Your task to perform on an android device: toggle priority inbox in the gmail app Image 0: 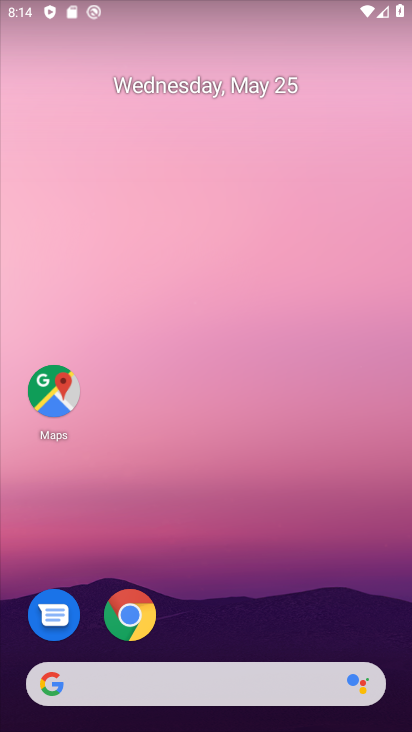
Step 0: drag from (189, 647) to (189, 45)
Your task to perform on an android device: toggle priority inbox in the gmail app Image 1: 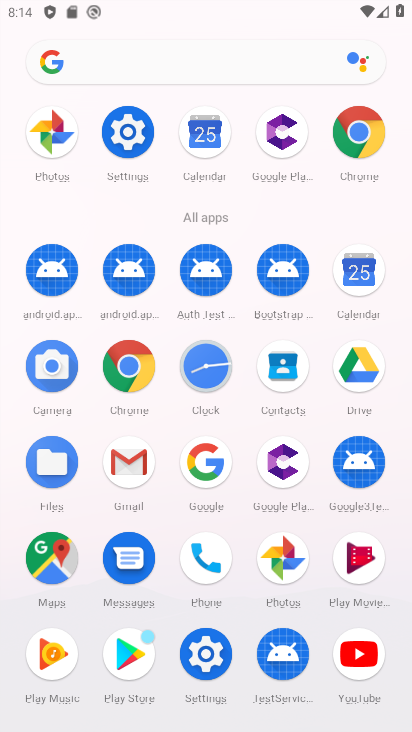
Step 1: click (123, 122)
Your task to perform on an android device: toggle priority inbox in the gmail app Image 2: 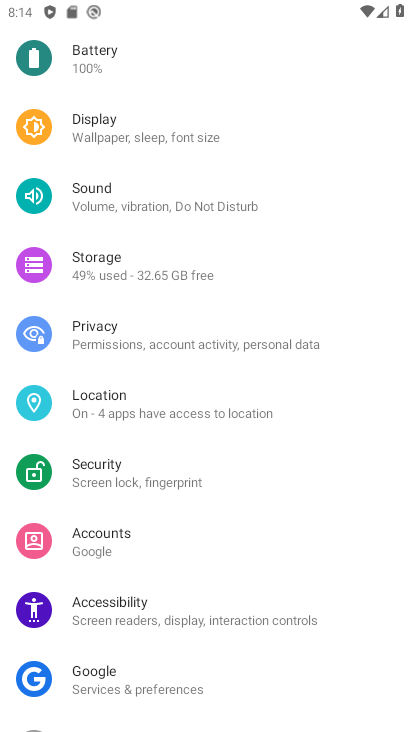
Step 2: press home button
Your task to perform on an android device: toggle priority inbox in the gmail app Image 3: 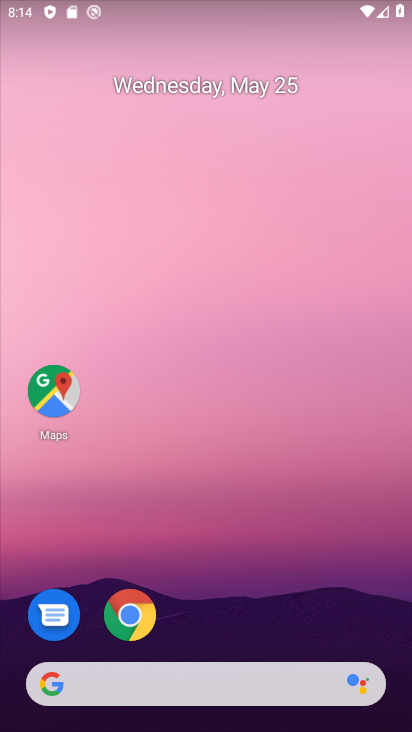
Step 3: drag from (240, 651) to (220, 142)
Your task to perform on an android device: toggle priority inbox in the gmail app Image 4: 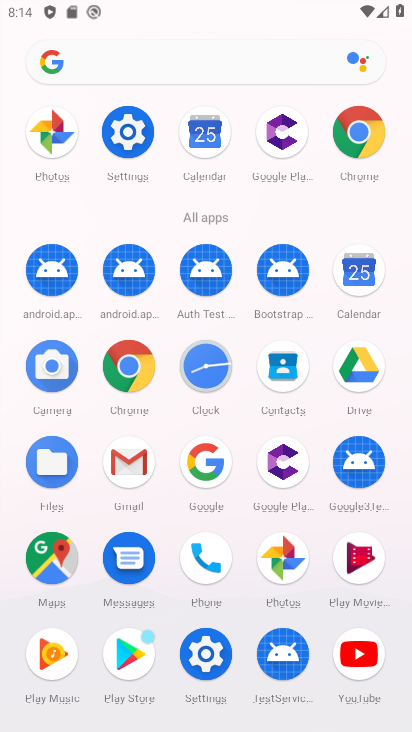
Step 4: click (123, 461)
Your task to perform on an android device: toggle priority inbox in the gmail app Image 5: 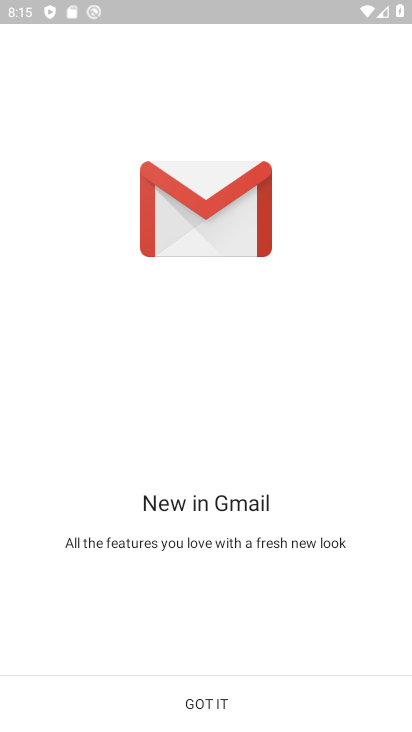
Step 5: click (180, 695)
Your task to perform on an android device: toggle priority inbox in the gmail app Image 6: 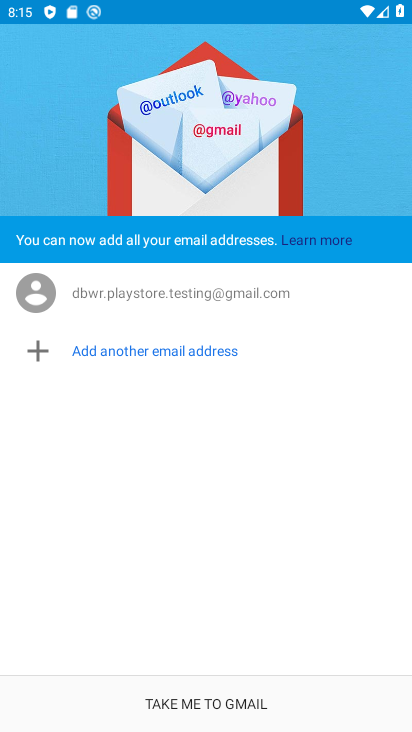
Step 6: click (190, 706)
Your task to perform on an android device: toggle priority inbox in the gmail app Image 7: 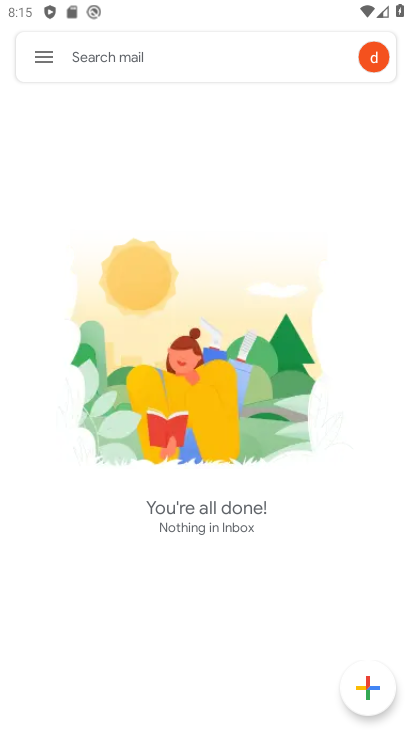
Step 7: click (43, 56)
Your task to perform on an android device: toggle priority inbox in the gmail app Image 8: 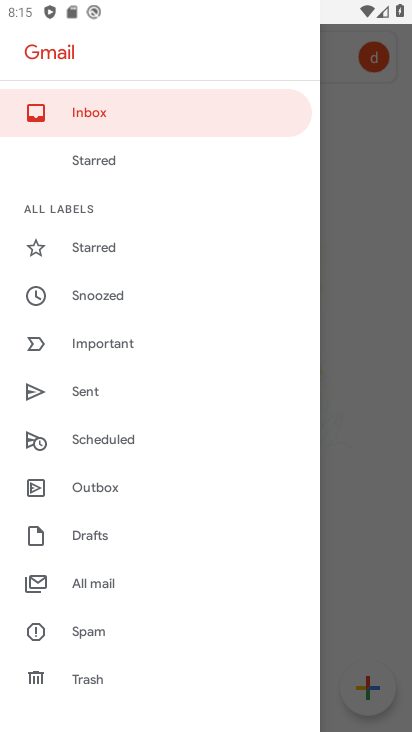
Step 8: drag from (191, 500) to (226, 51)
Your task to perform on an android device: toggle priority inbox in the gmail app Image 9: 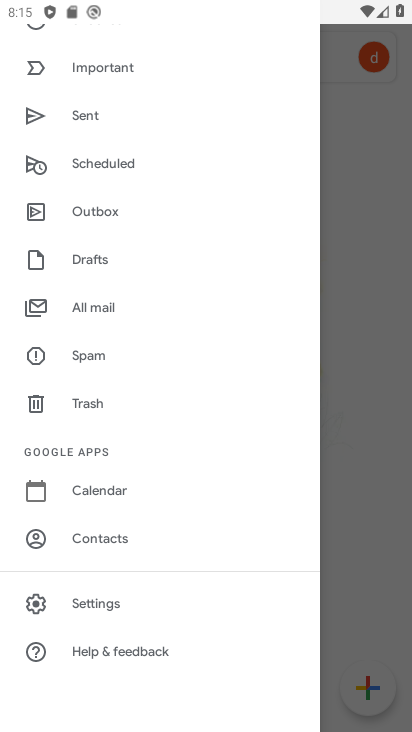
Step 9: click (95, 596)
Your task to perform on an android device: toggle priority inbox in the gmail app Image 10: 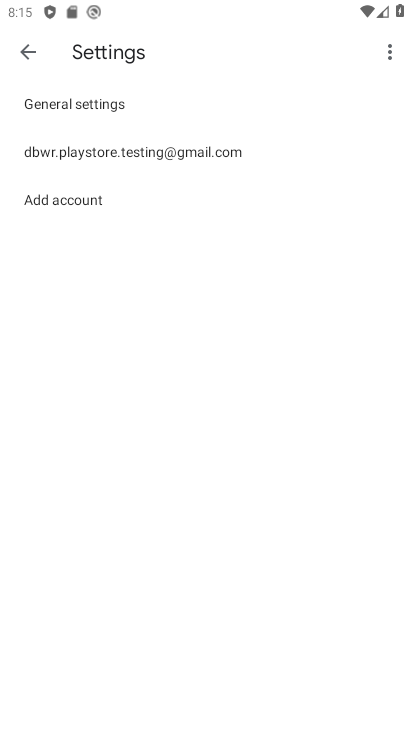
Step 10: click (88, 162)
Your task to perform on an android device: toggle priority inbox in the gmail app Image 11: 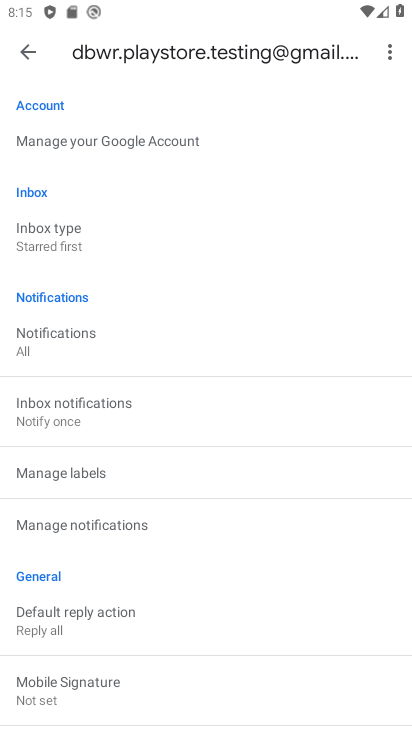
Step 11: click (71, 248)
Your task to perform on an android device: toggle priority inbox in the gmail app Image 12: 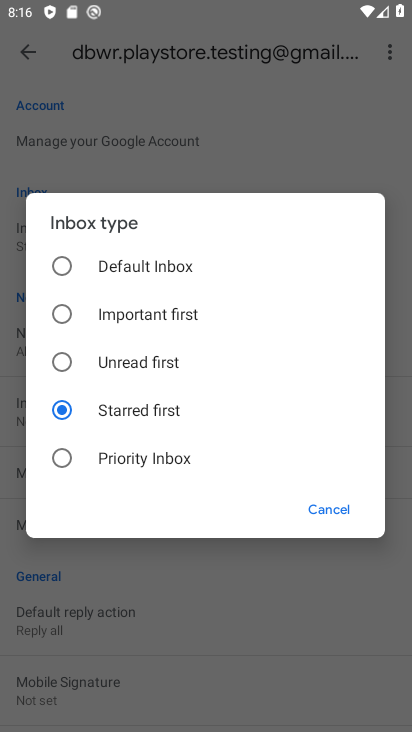
Step 12: click (58, 459)
Your task to perform on an android device: toggle priority inbox in the gmail app Image 13: 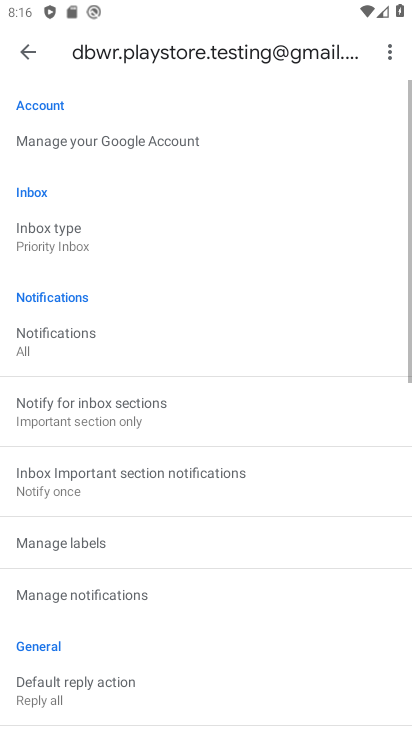
Step 13: task complete